Your task to perform on an android device: turn off priority inbox in the gmail app Image 0: 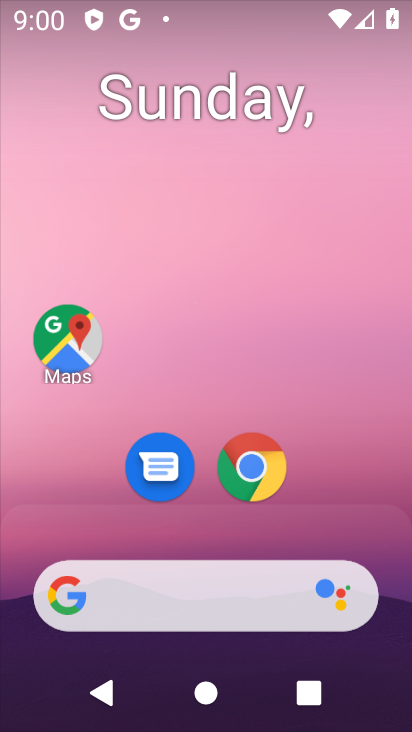
Step 0: drag from (357, 519) to (252, 0)
Your task to perform on an android device: turn off priority inbox in the gmail app Image 1: 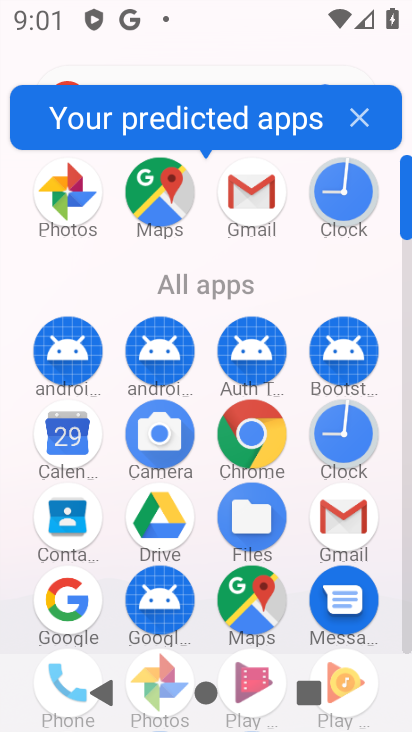
Step 1: click (250, 195)
Your task to perform on an android device: turn off priority inbox in the gmail app Image 2: 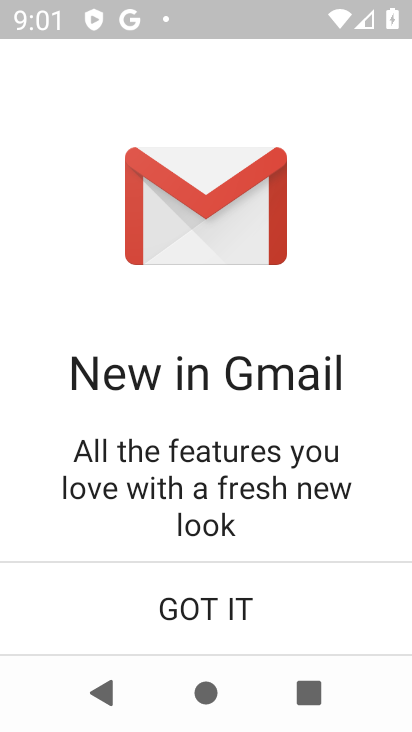
Step 2: drag from (250, 195) to (230, 107)
Your task to perform on an android device: turn off priority inbox in the gmail app Image 3: 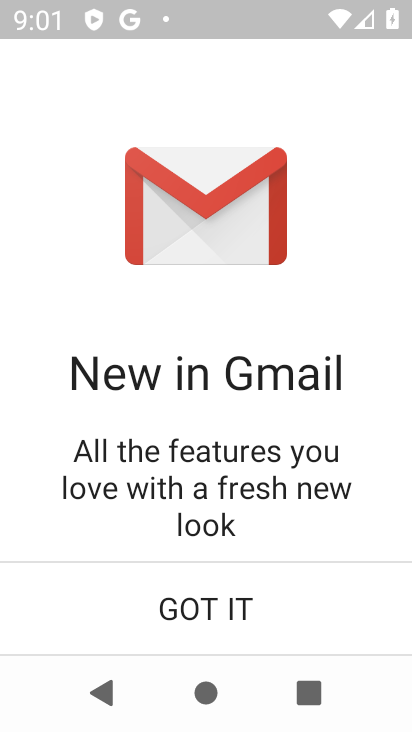
Step 3: click (286, 573)
Your task to perform on an android device: turn off priority inbox in the gmail app Image 4: 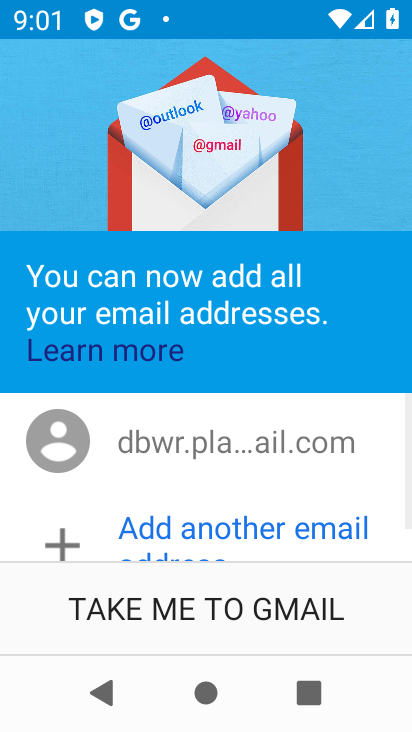
Step 4: click (280, 604)
Your task to perform on an android device: turn off priority inbox in the gmail app Image 5: 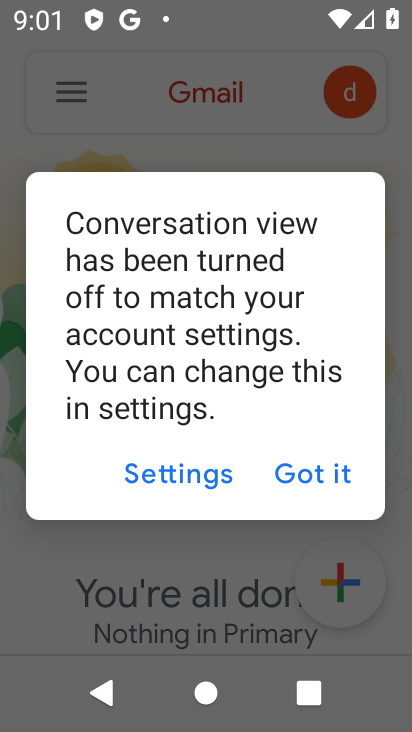
Step 5: click (316, 473)
Your task to perform on an android device: turn off priority inbox in the gmail app Image 6: 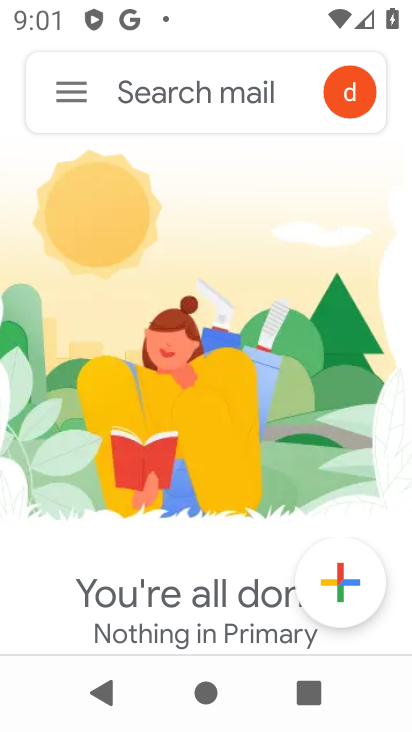
Step 6: click (80, 107)
Your task to perform on an android device: turn off priority inbox in the gmail app Image 7: 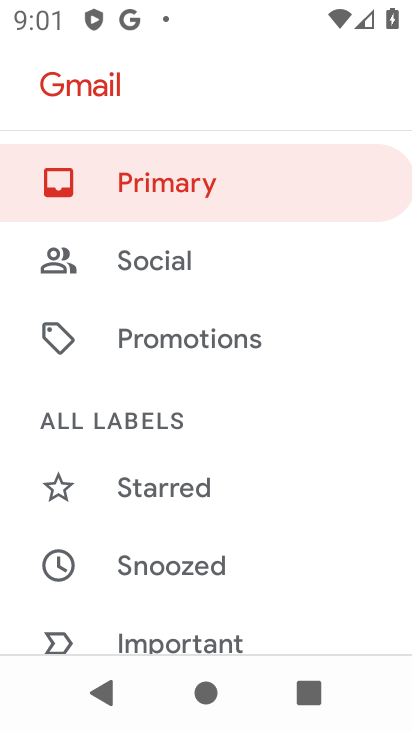
Step 7: drag from (204, 626) to (165, 250)
Your task to perform on an android device: turn off priority inbox in the gmail app Image 8: 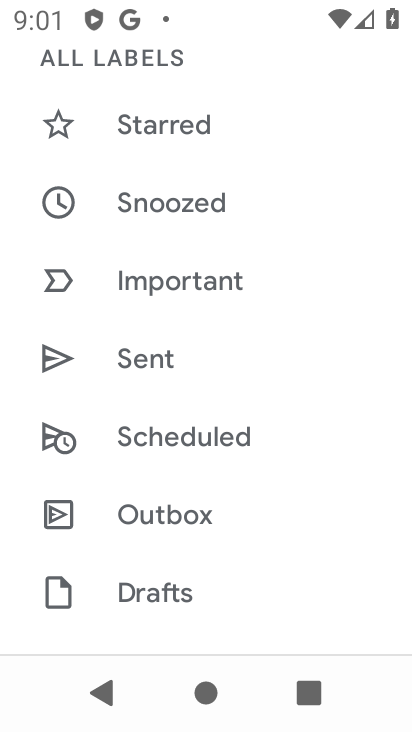
Step 8: drag from (180, 380) to (179, 179)
Your task to perform on an android device: turn off priority inbox in the gmail app Image 9: 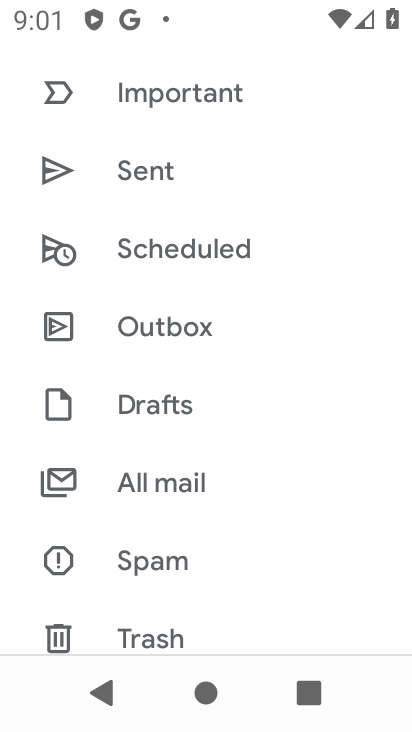
Step 9: drag from (178, 591) to (167, 172)
Your task to perform on an android device: turn off priority inbox in the gmail app Image 10: 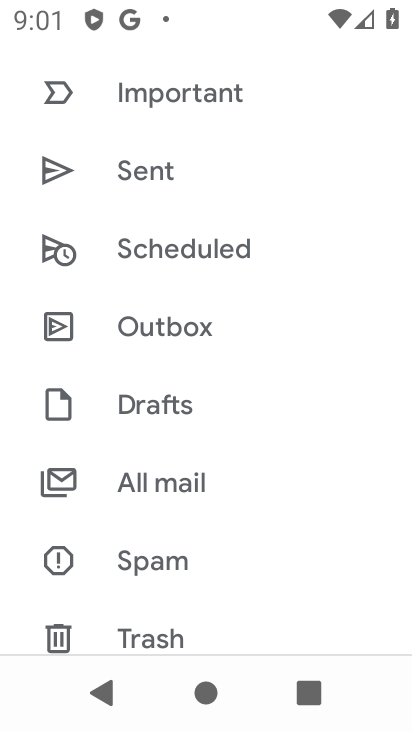
Step 10: drag from (184, 588) to (174, 198)
Your task to perform on an android device: turn off priority inbox in the gmail app Image 11: 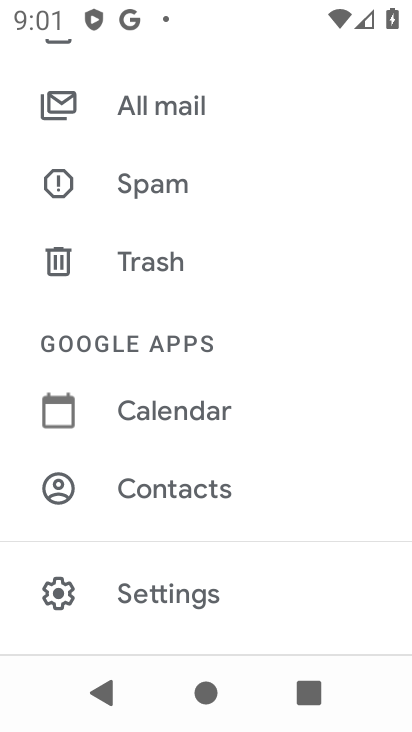
Step 11: drag from (183, 558) to (173, 234)
Your task to perform on an android device: turn off priority inbox in the gmail app Image 12: 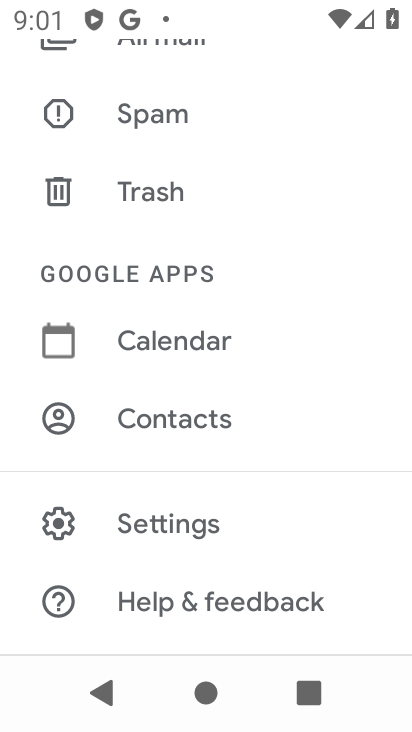
Step 12: click (181, 526)
Your task to perform on an android device: turn off priority inbox in the gmail app Image 13: 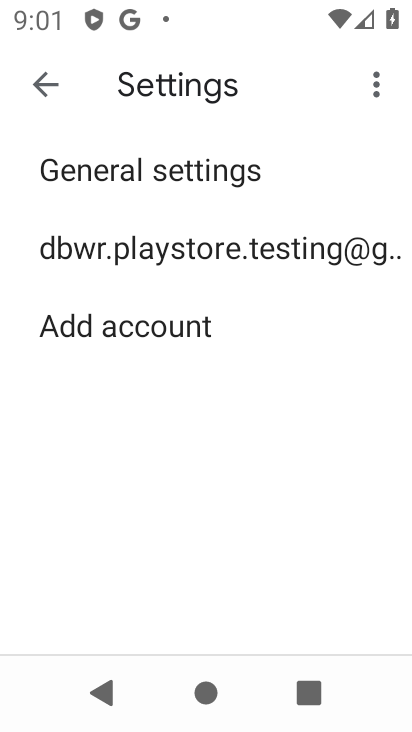
Step 13: click (193, 250)
Your task to perform on an android device: turn off priority inbox in the gmail app Image 14: 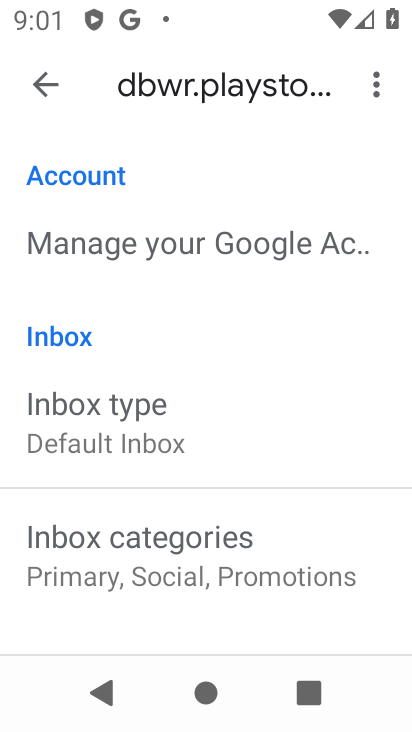
Step 14: click (220, 447)
Your task to perform on an android device: turn off priority inbox in the gmail app Image 15: 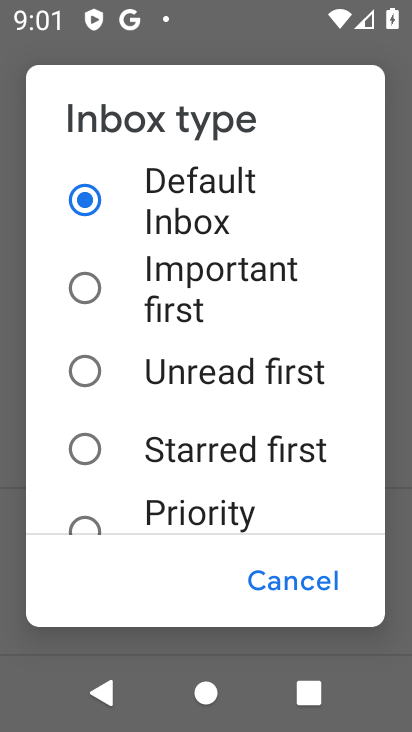
Step 15: task complete